Your task to perform on an android device: Open ESPN.com Image 0: 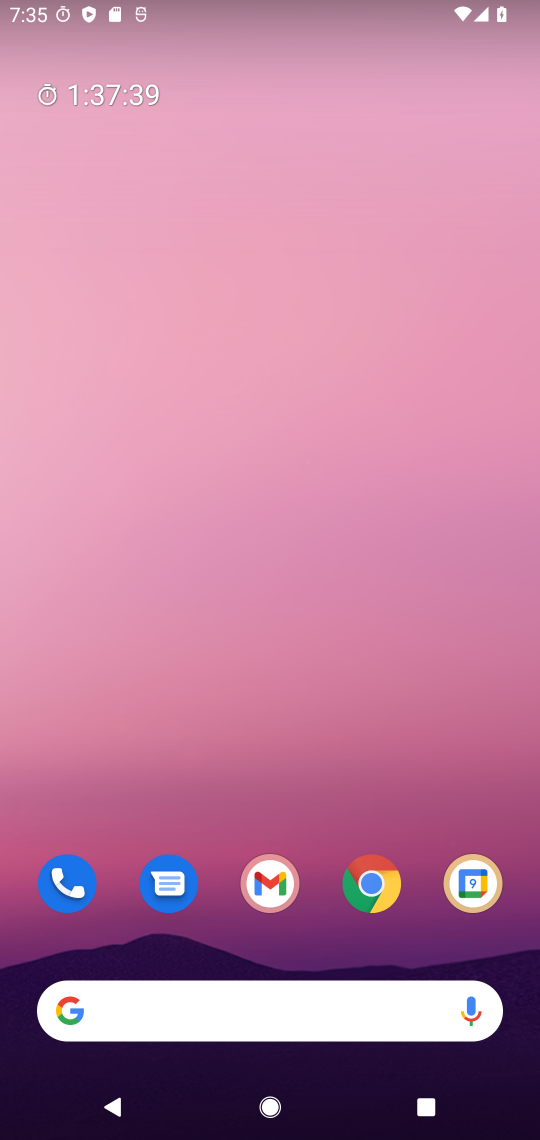
Step 0: click (337, 871)
Your task to perform on an android device: Open ESPN.com Image 1: 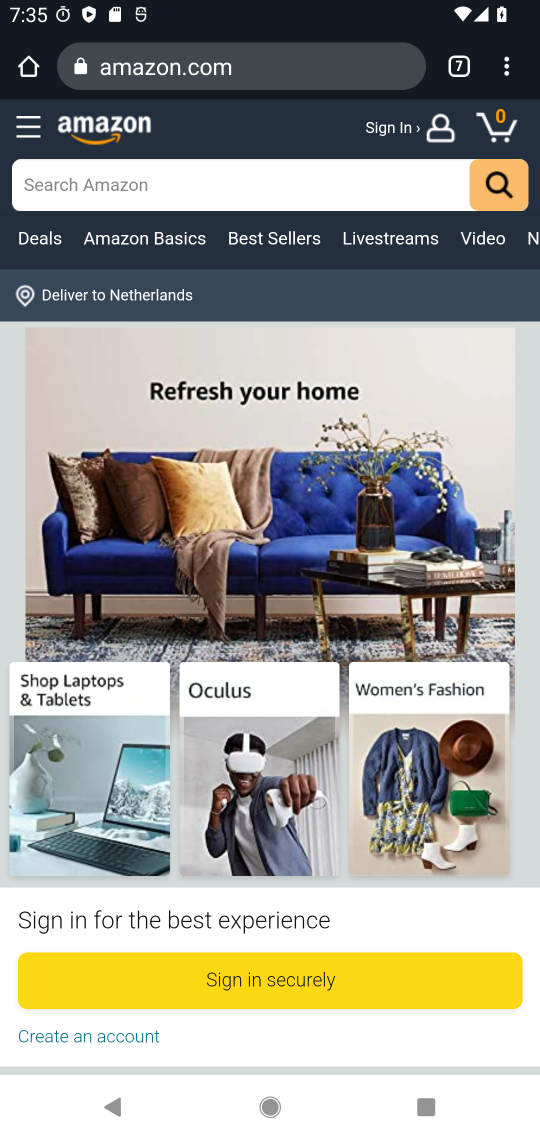
Step 1: click (464, 68)
Your task to perform on an android device: Open ESPN.com Image 2: 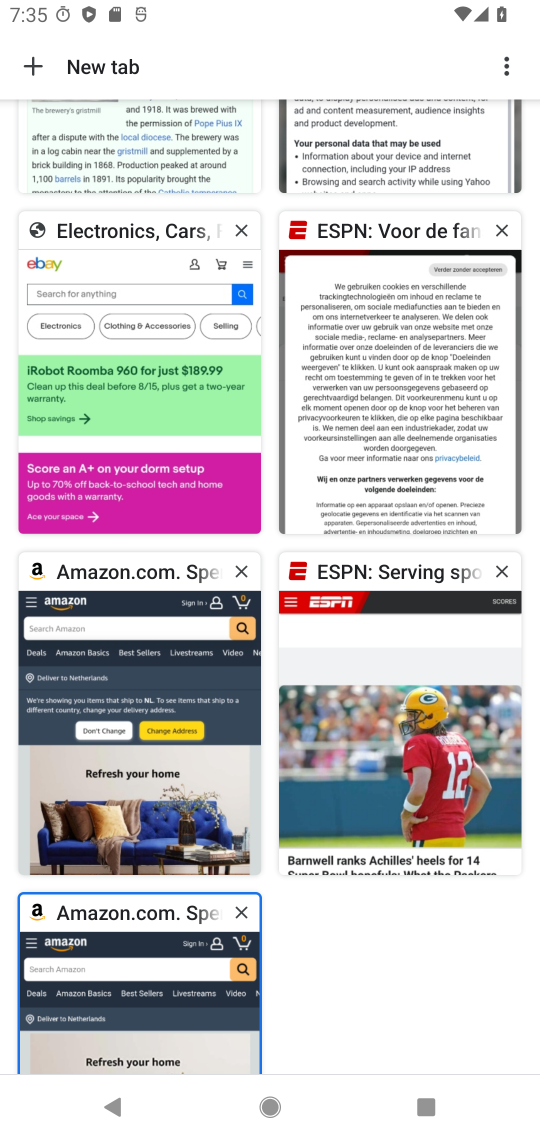
Step 2: click (346, 409)
Your task to perform on an android device: Open ESPN.com Image 3: 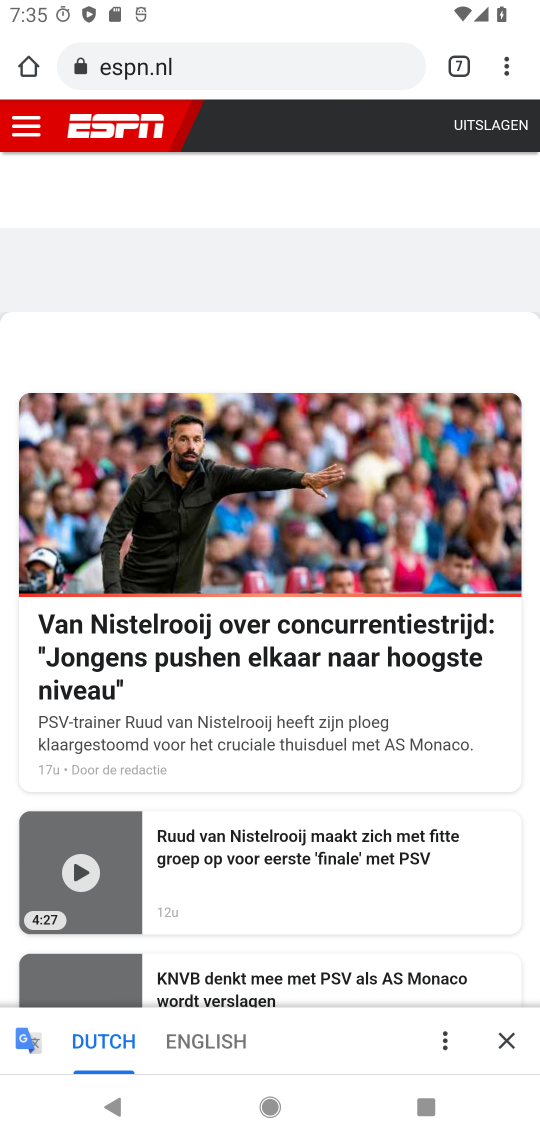
Step 3: task complete